Your task to perform on an android device: Open Maps and search for coffee Image 0: 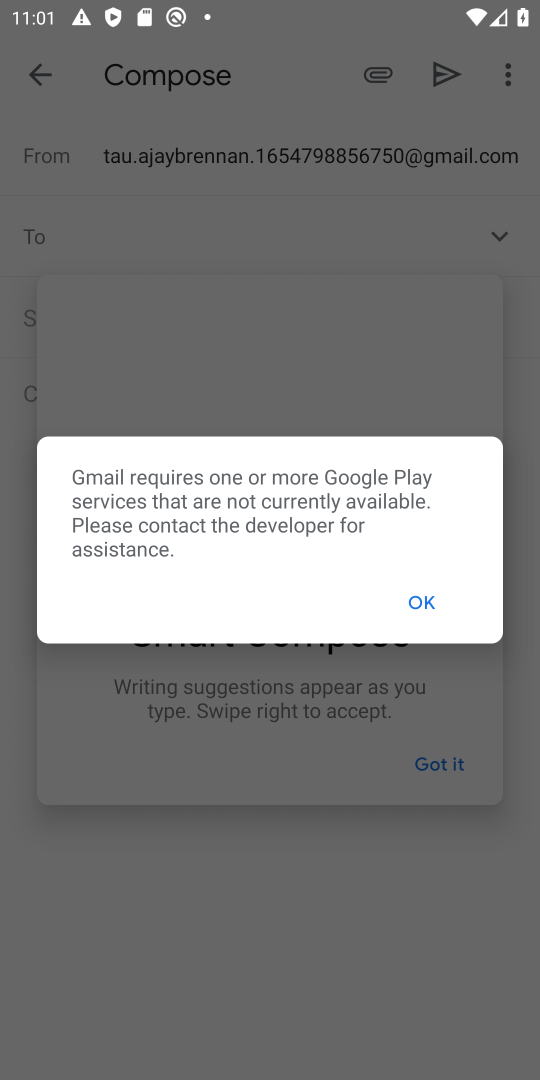
Step 0: press home button
Your task to perform on an android device: Open Maps and search for coffee Image 1: 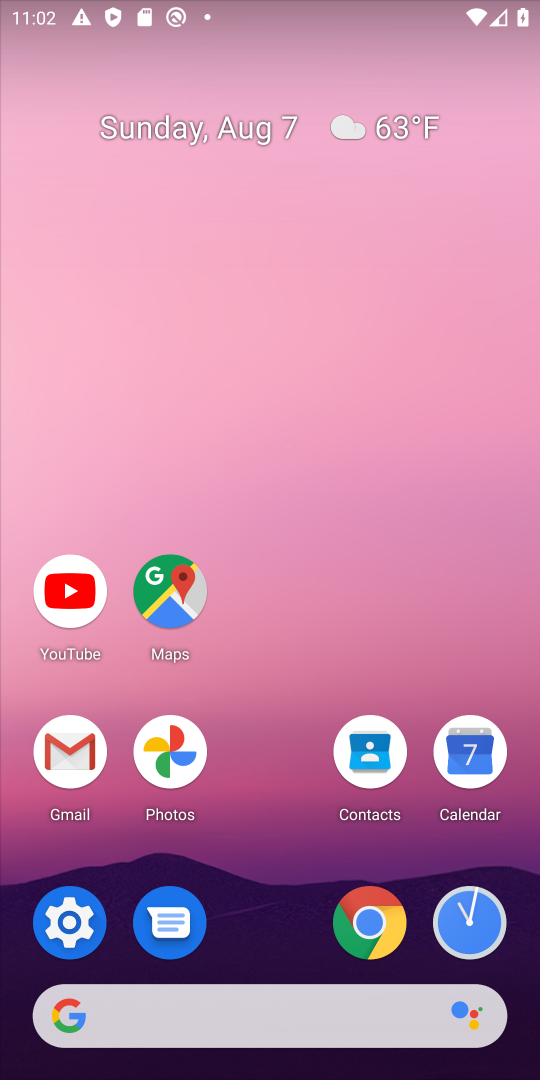
Step 1: click (173, 599)
Your task to perform on an android device: Open Maps and search for coffee Image 2: 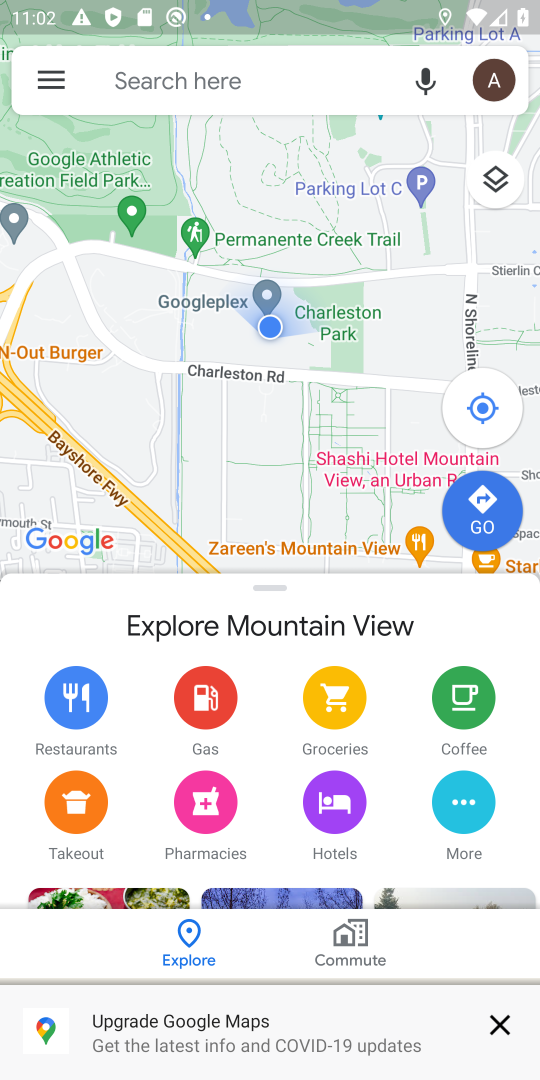
Step 2: click (180, 90)
Your task to perform on an android device: Open Maps and search for coffee Image 3: 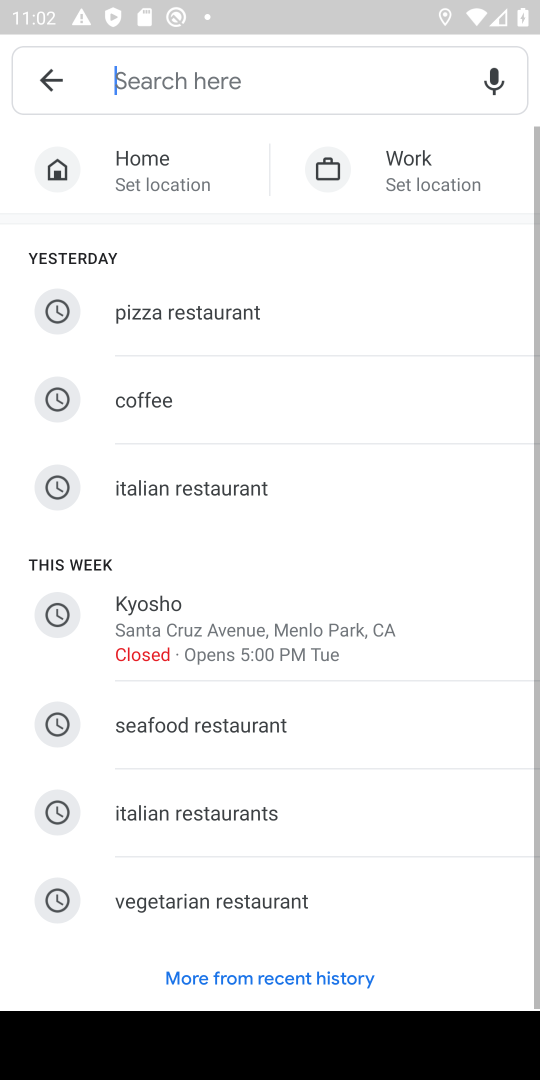
Step 3: click (142, 396)
Your task to perform on an android device: Open Maps and search for coffee Image 4: 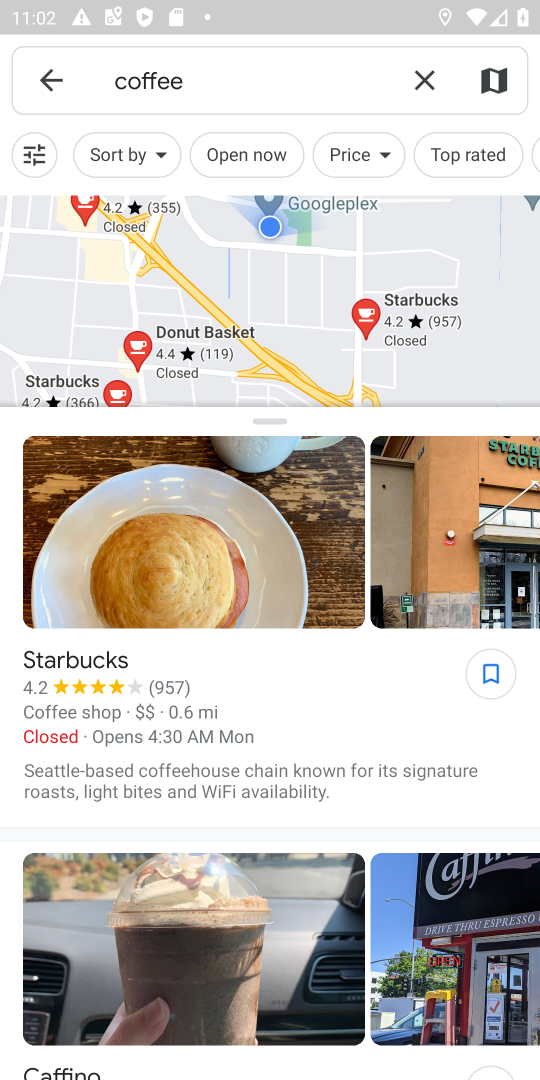
Step 4: task complete